Your task to perform on an android device: toggle notifications settings in the gmail app Image 0: 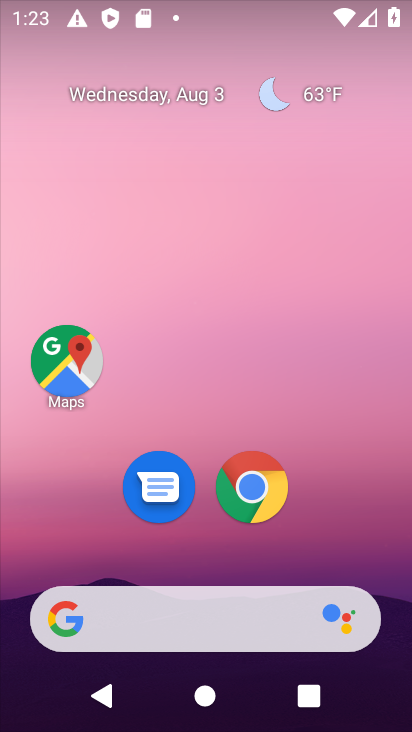
Step 0: press home button
Your task to perform on an android device: toggle notifications settings in the gmail app Image 1: 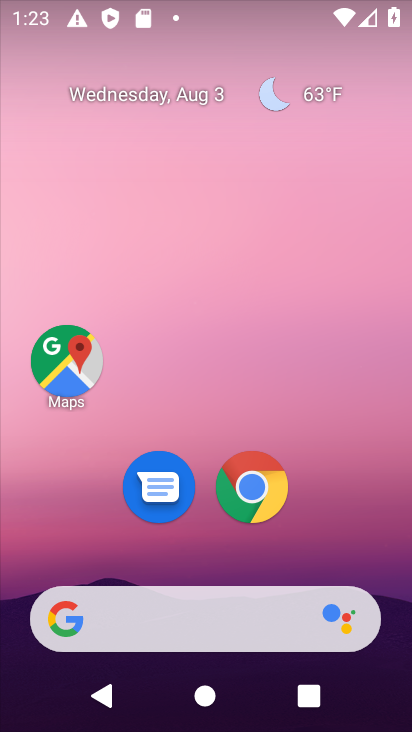
Step 1: drag from (334, 525) to (309, 1)
Your task to perform on an android device: toggle notifications settings in the gmail app Image 2: 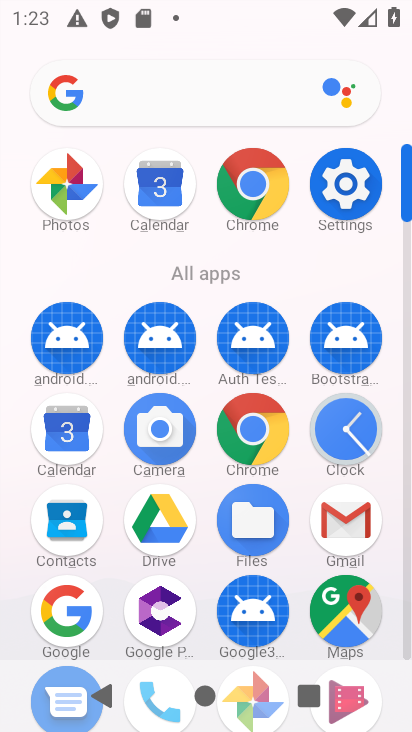
Step 2: click (352, 523)
Your task to perform on an android device: toggle notifications settings in the gmail app Image 3: 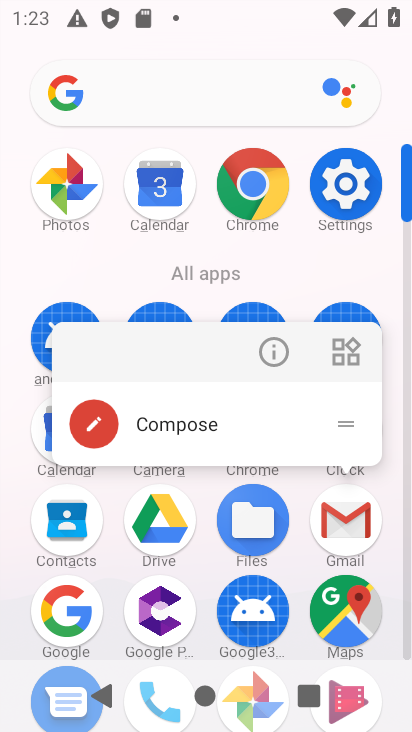
Step 3: click (279, 349)
Your task to perform on an android device: toggle notifications settings in the gmail app Image 4: 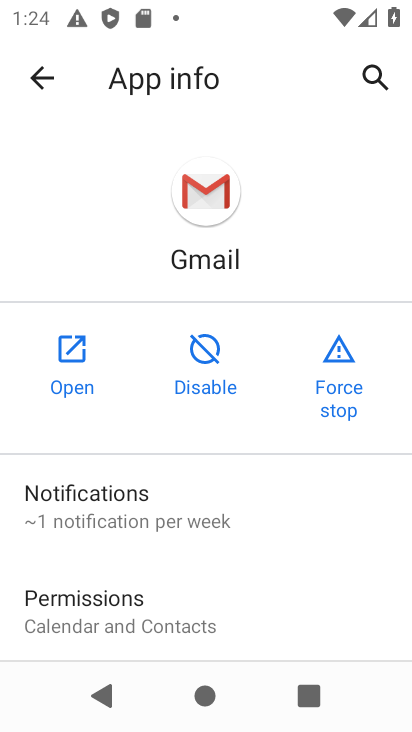
Step 4: click (100, 486)
Your task to perform on an android device: toggle notifications settings in the gmail app Image 5: 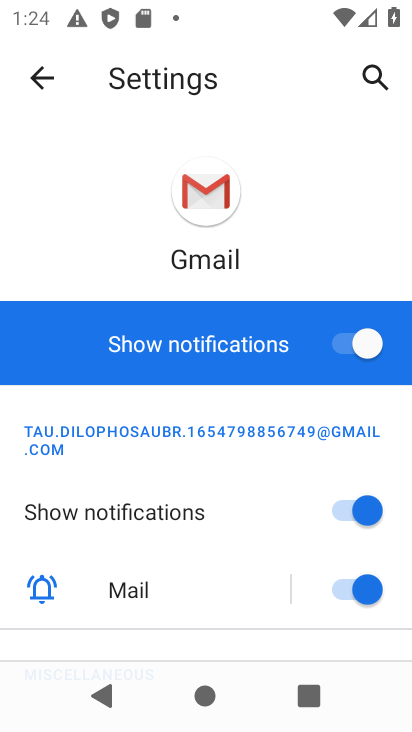
Step 5: click (319, 334)
Your task to perform on an android device: toggle notifications settings in the gmail app Image 6: 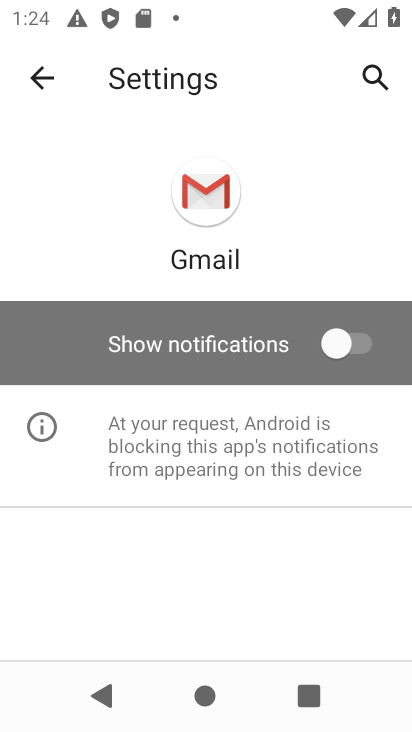
Step 6: task complete